Your task to perform on an android device: make emails show in primary in the gmail app Image 0: 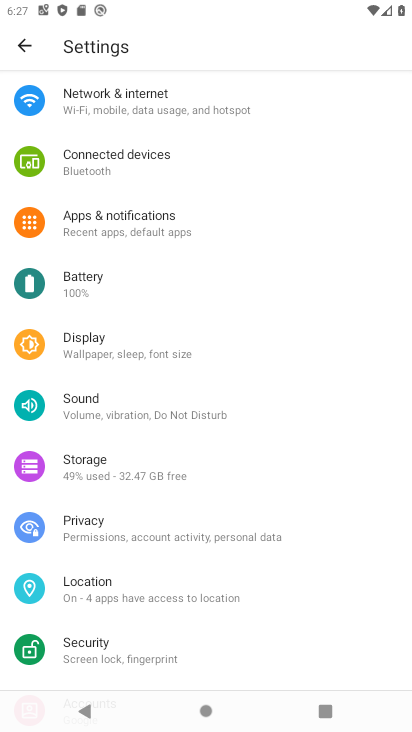
Step 0: drag from (149, 589) to (155, 190)
Your task to perform on an android device: make emails show in primary in the gmail app Image 1: 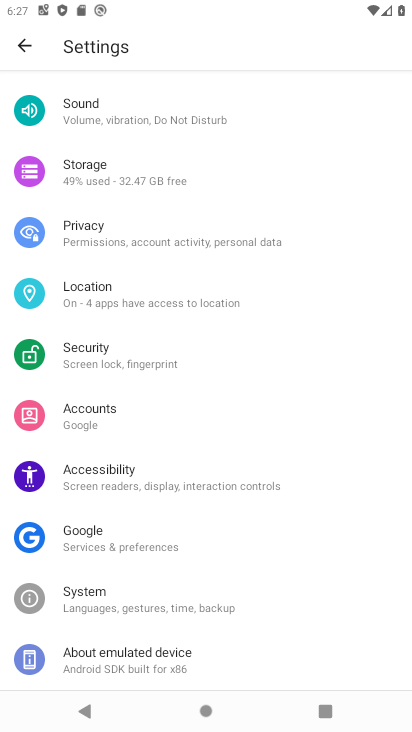
Step 1: press home button
Your task to perform on an android device: make emails show in primary in the gmail app Image 2: 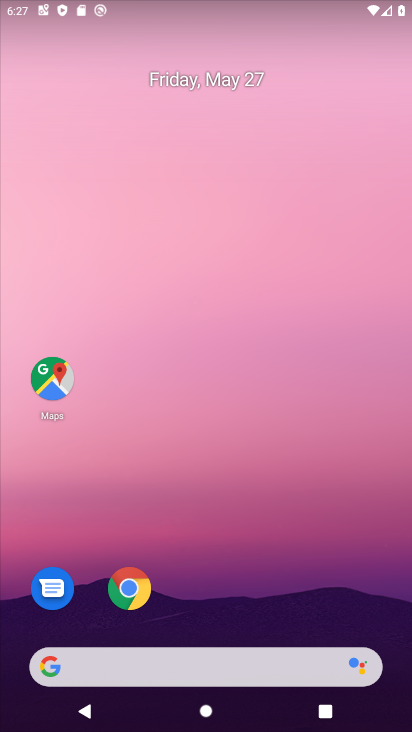
Step 2: drag from (282, 611) to (289, 73)
Your task to perform on an android device: make emails show in primary in the gmail app Image 3: 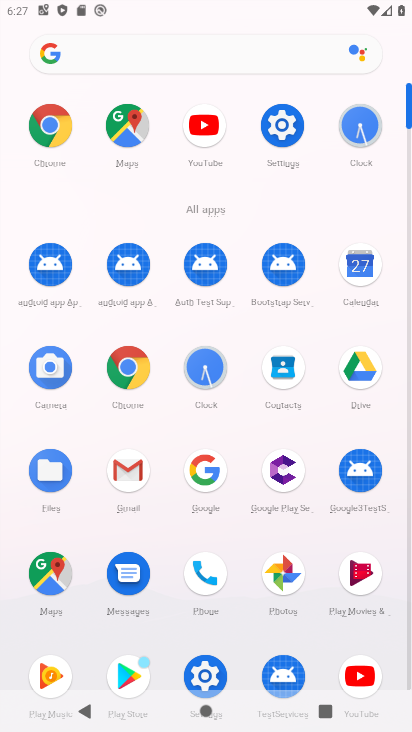
Step 3: click (117, 487)
Your task to perform on an android device: make emails show in primary in the gmail app Image 4: 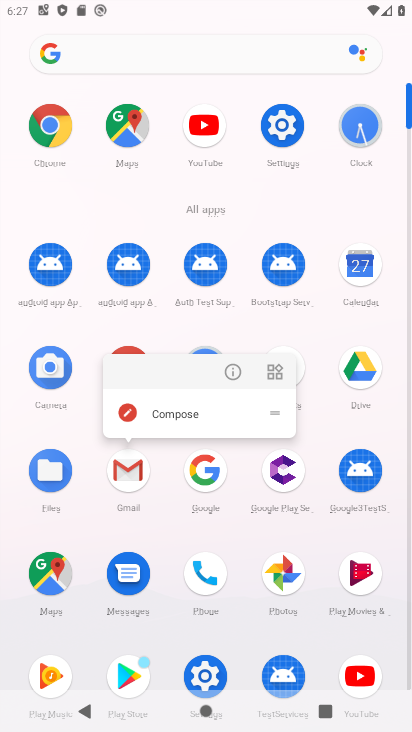
Step 4: click (117, 487)
Your task to perform on an android device: make emails show in primary in the gmail app Image 5: 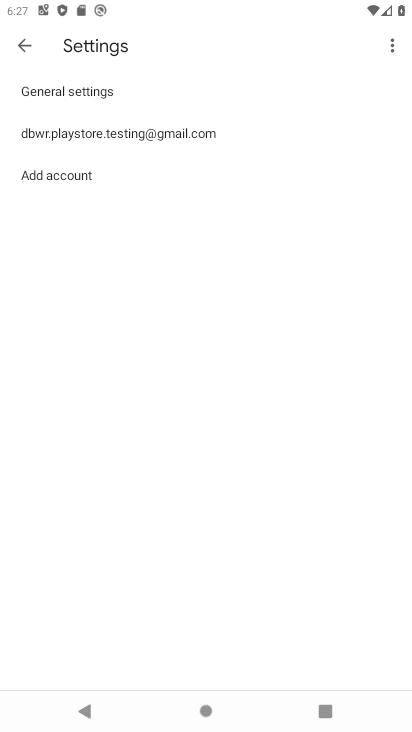
Step 5: click (19, 52)
Your task to perform on an android device: make emails show in primary in the gmail app Image 6: 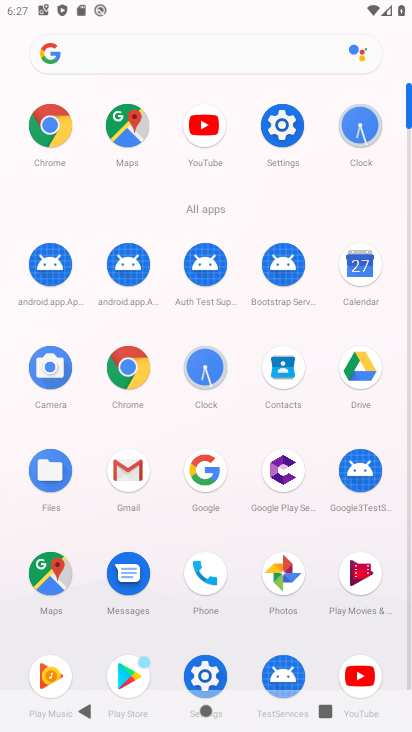
Step 6: click (120, 458)
Your task to perform on an android device: make emails show in primary in the gmail app Image 7: 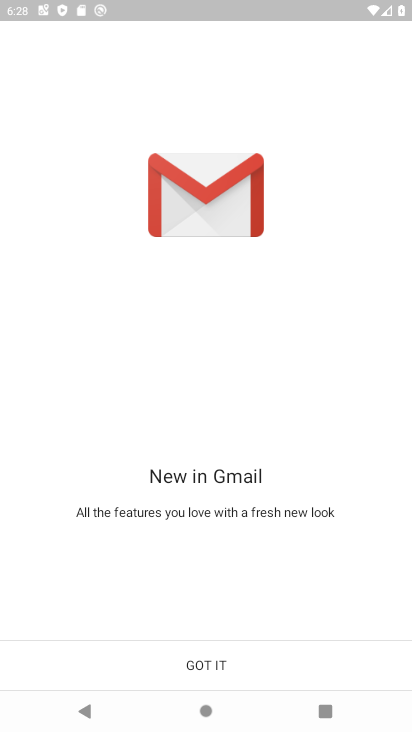
Step 7: click (225, 659)
Your task to perform on an android device: make emails show in primary in the gmail app Image 8: 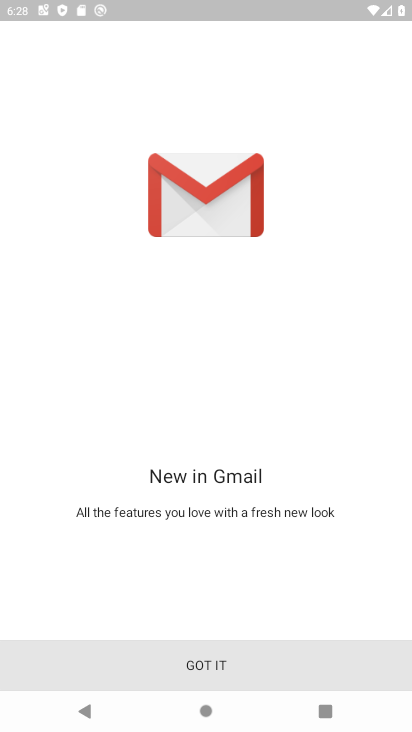
Step 8: click (225, 659)
Your task to perform on an android device: make emails show in primary in the gmail app Image 9: 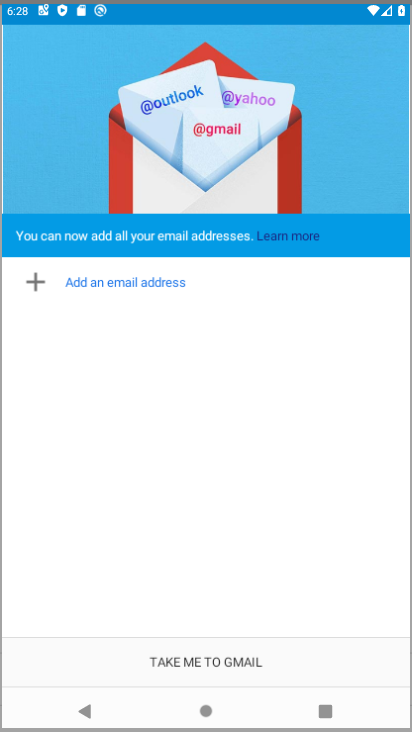
Step 9: click (225, 659)
Your task to perform on an android device: make emails show in primary in the gmail app Image 10: 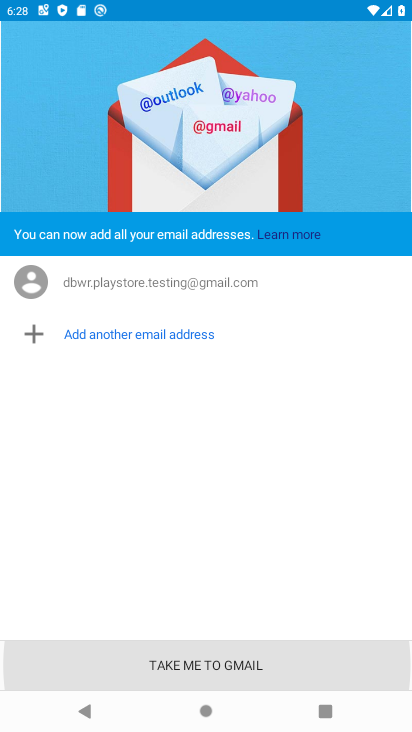
Step 10: click (225, 659)
Your task to perform on an android device: make emails show in primary in the gmail app Image 11: 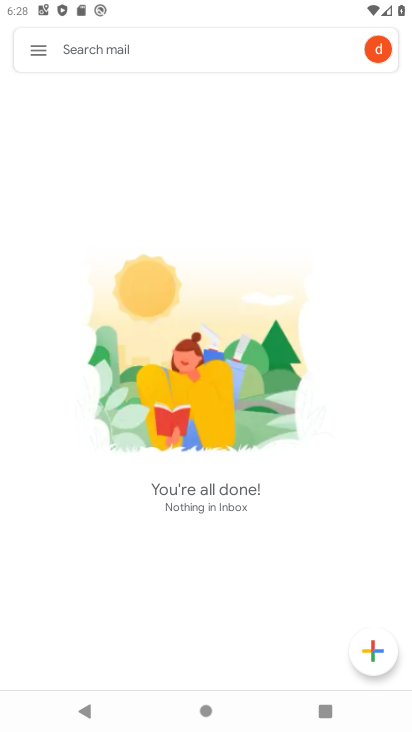
Step 11: click (38, 44)
Your task to perform on an android device: make emails show in primary in the gmail app Image 12: 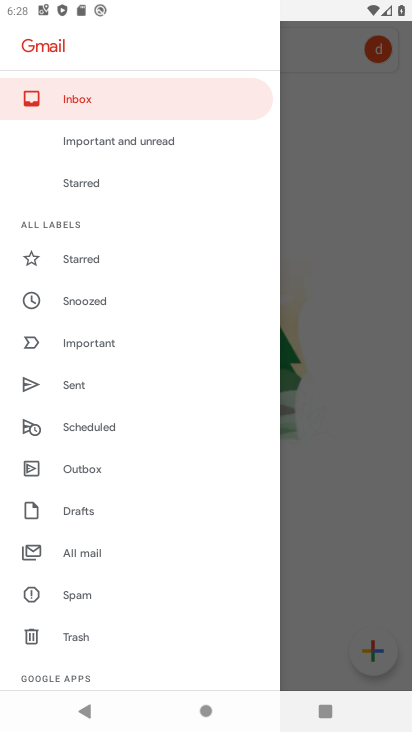
Step 12: task complete